Your task to perform on an android device: Go to sound settings Image 0: 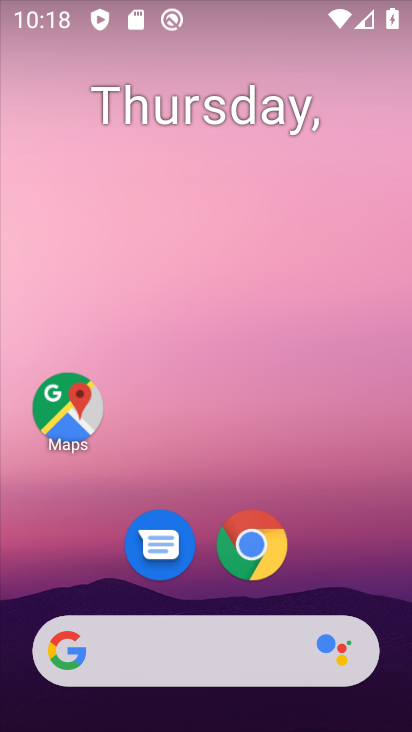
Step 0: drag from (320, 563) to (268, 163)
Your task to perform on an android device: Go to sound settings Image 1: 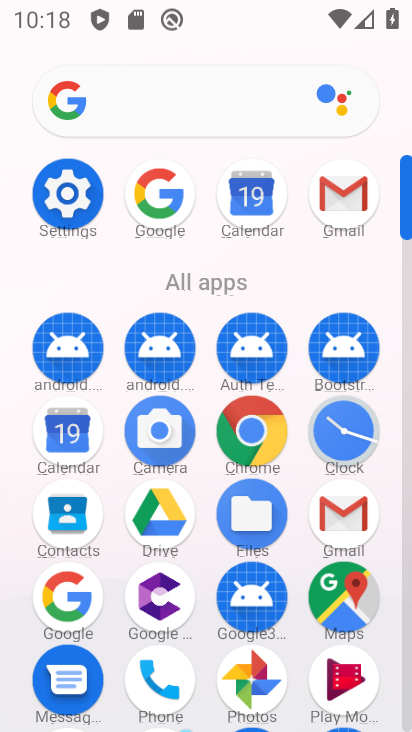
Step 1: click (68, 194)
Your task to perform on an android device: Go to sound settings Image 2: 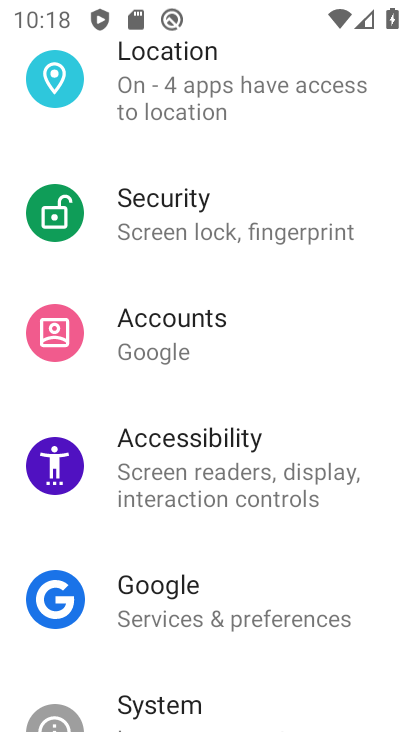
Step 2: drag from (228, 393) to (249, 489)
Your task to perform on an android device: Go to sound settings Image 3: 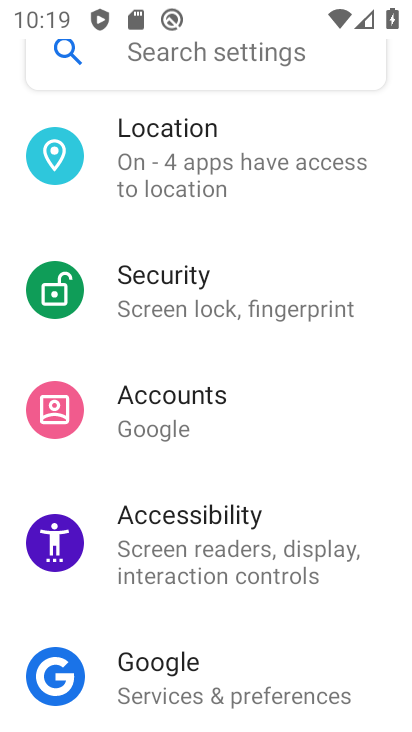
Step 3: drag from (249, 243) to (251, 348)
Your task to perform on an android device: Go to sound settings Image 4: 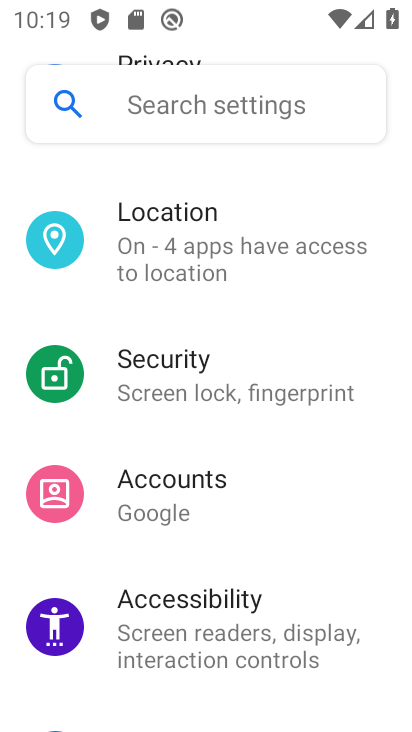
Step 4: drag from (278, 191) to (265, 332)
Your task to perform on an android device: Go to sound settings Image 5: 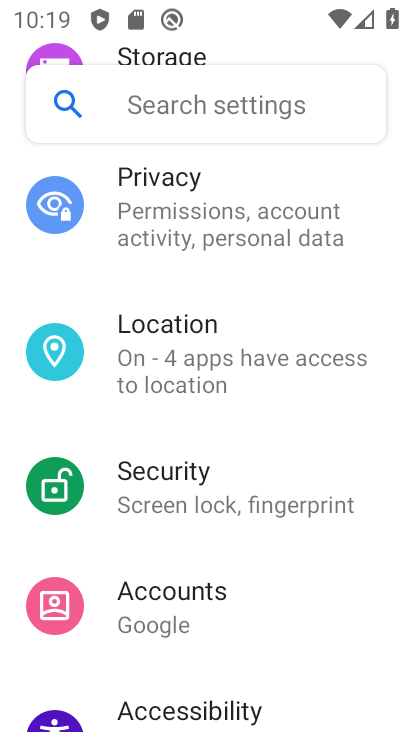
Step 5: drag from (246, 283) to (258, 378)
Your task to perform on an android device: Go to sound settings Image 6: 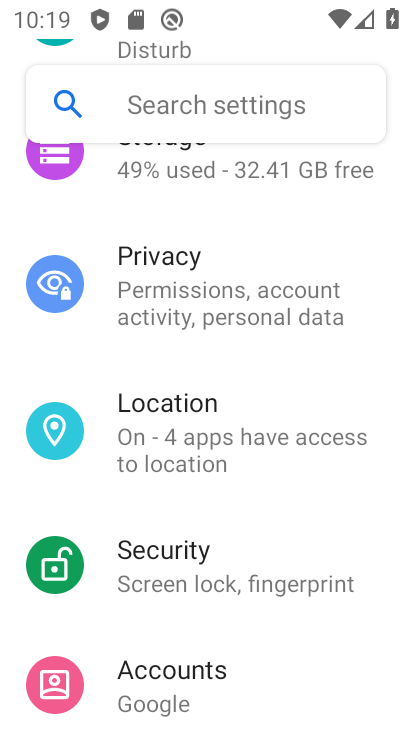
Step 6: drag from (230, 246) to (247, 353)
Your task to perform on an android device: Go to sound settings Image 7: 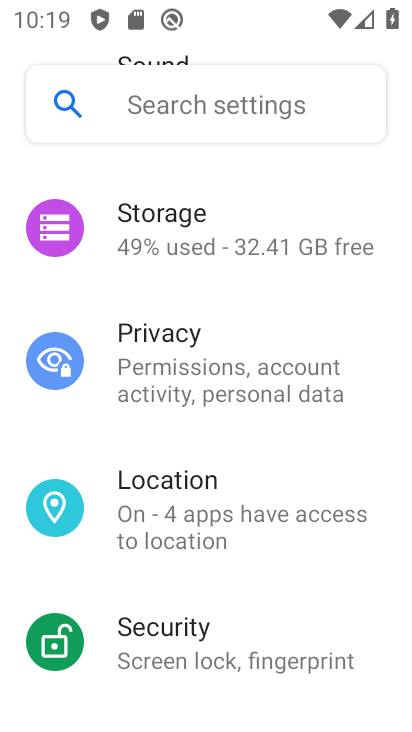
Step 7: drag from (257, 272) to (274, 437)
Your task to perform on an android device: Go to sound settings Image 8: 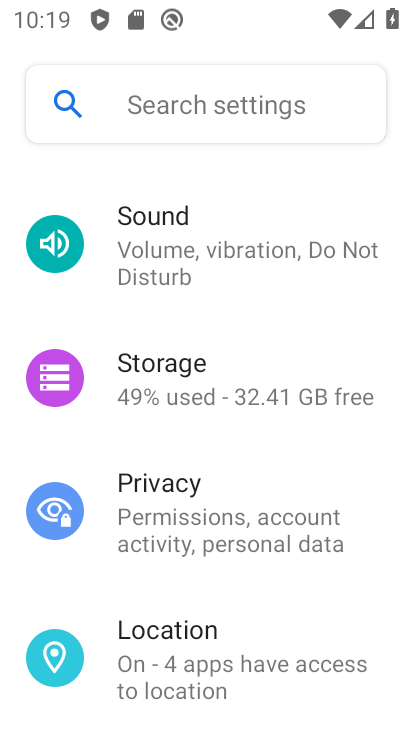
Step 8: click (176, 221)
Your task to perform on an android device: Go to sound settings Image 9: 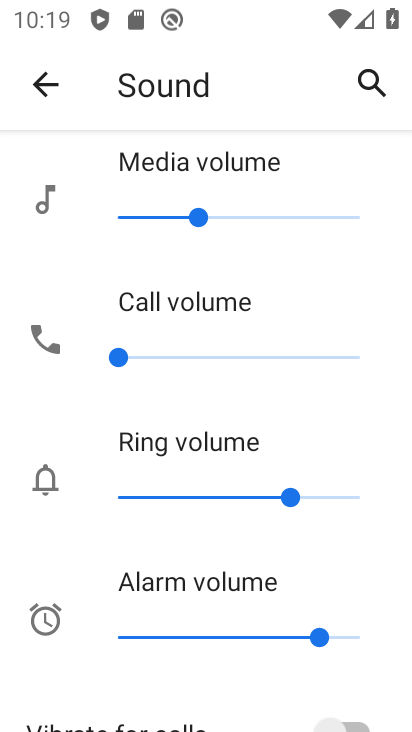
Step 9: task complete